Your task to perform on an android device: change keyboard looks Image 0: 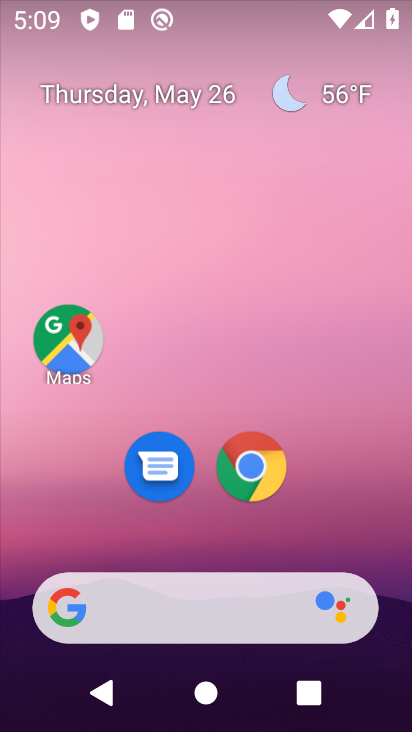
Step 0: drag from (282, 517) to (333, 83)
Your task to perform on an android device: change keyboard looks Image 1: 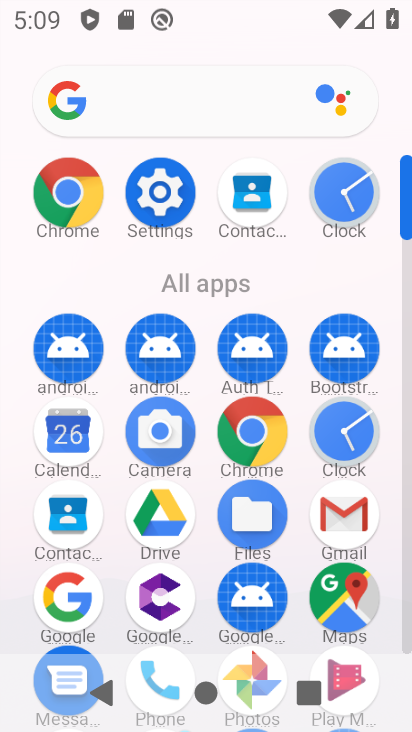
Step 1: click (147, 196)
Your task to perform on an android device: change keyboard looks Image 2: 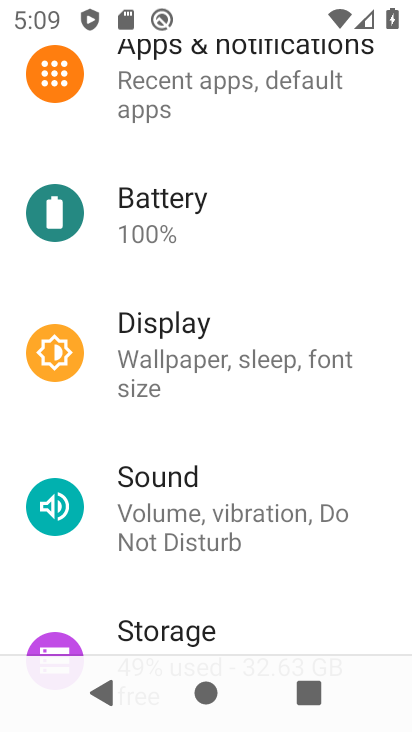
Step 2: drag from (355, 600) to (341, 126)
Your task to perform on an android device: change keyboard looks Image 3: 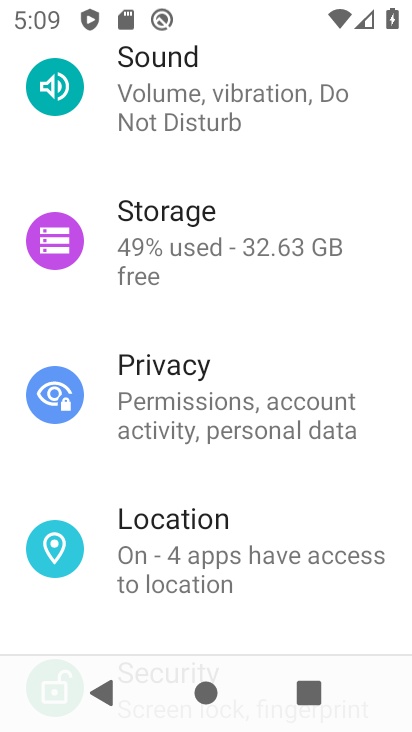
Step 3: drag from (362, 616) to (347, 202)
Your task to perform on an android device: change keyboard looks Image 4: 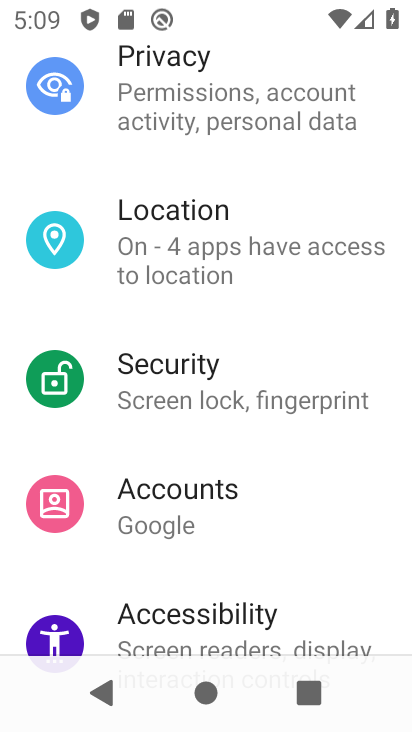
Step 4: drag from (370, 613) to (363, 234)
Your task to perform on an android device: change keyboard looks Image 5: 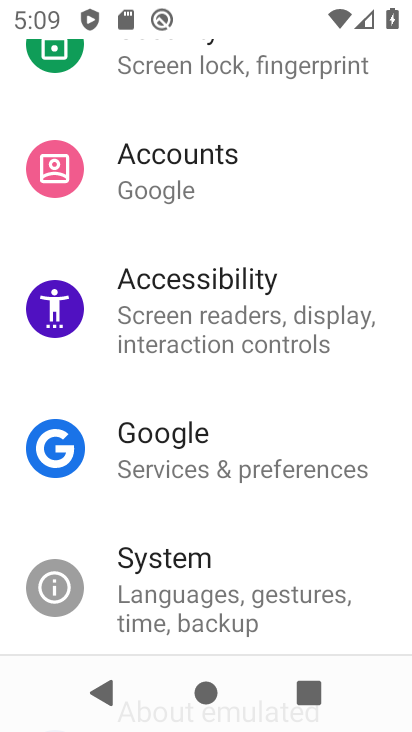
Step 5: click (167, 585)
Your task to perform on an android device: change keyboard looks Image 6: 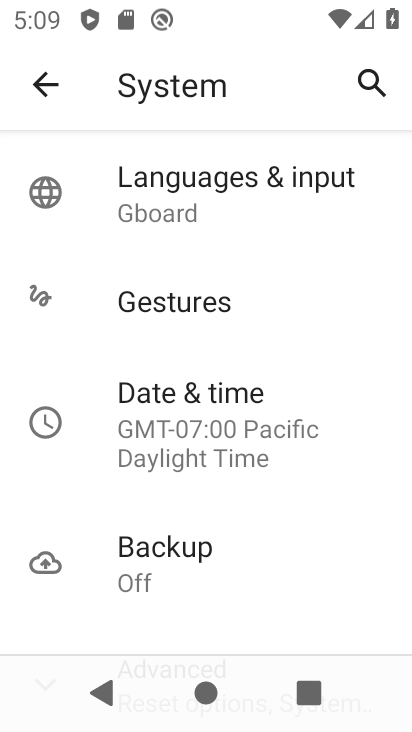
Step 6: click (141, 194)
Your task to perform on an android device: change keyboard looks Image 7: 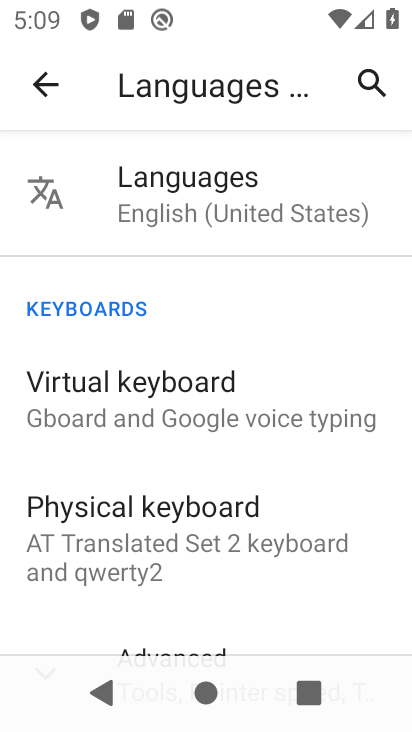
Step 7: click (168, 400)
Your task to perform on an android device: change keyboard looks Image 8: 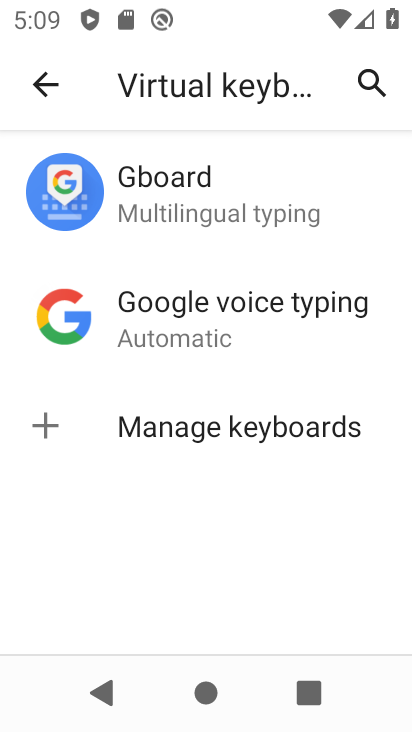
Step 8: click (181, 185)
Your task to perform on an android device: change keyboard looks Image 9: 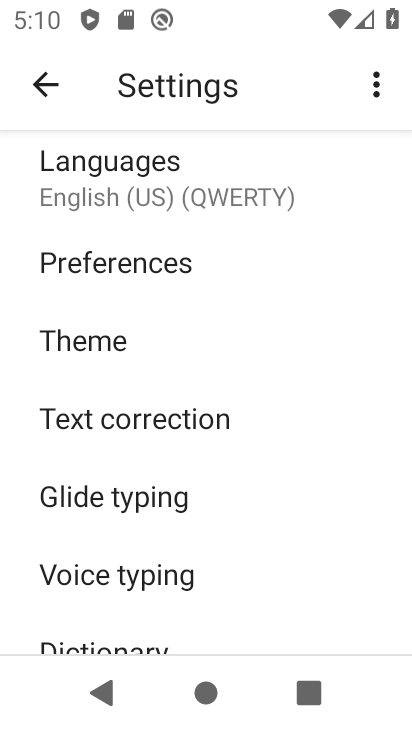
Step 9: click (95, 338)
Your task to perform on an android device: change keyboard looks Image 10: 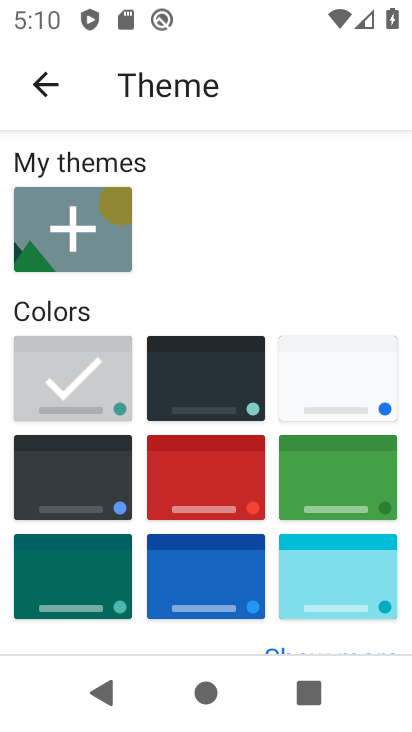
Step 10: click (204, 383)
Your task to perform on an android device: change keyboard looks Image 11: 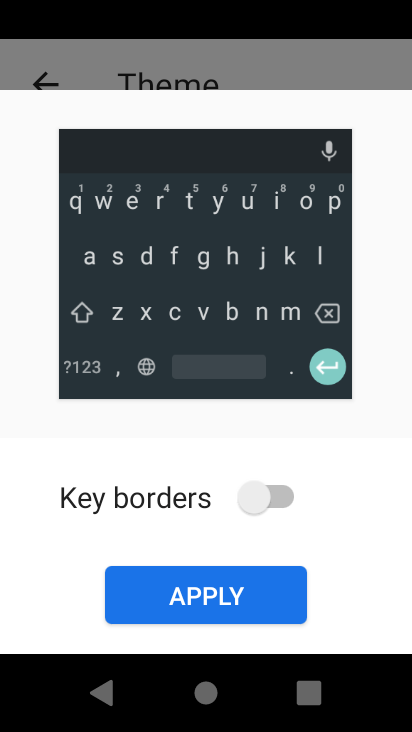
Step 11: click (279, 502)
Your task to perform on an android device: change keyboard looks Image 12: 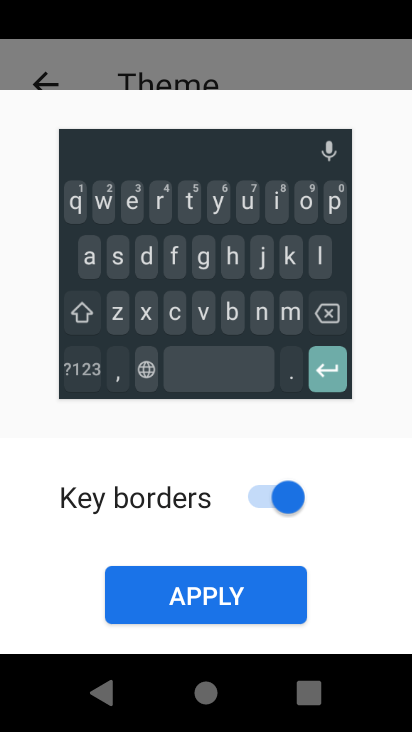
Step 12: click (244, 591)
Your task to perform on an android device: change keyboard looks Image 13: 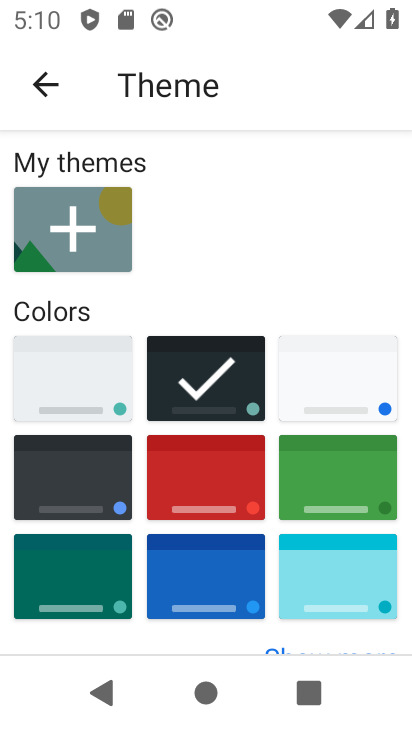
Step 13: task complete